Your task to perform on an android device: turn on translation in the chrome app Image 0: 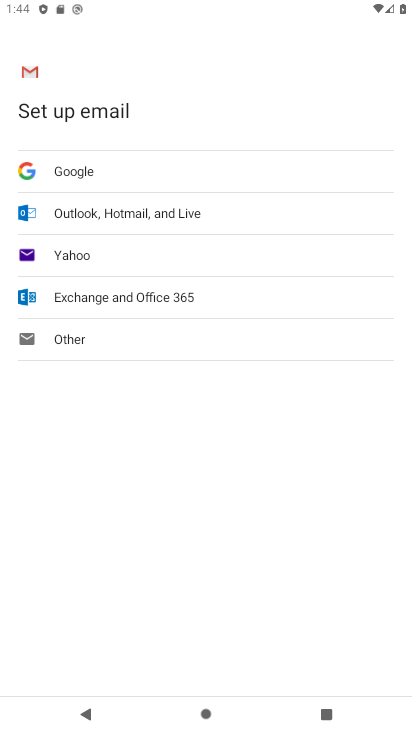
Step 0: press home button
Your task to perform on an android device: turn on translation in the chrome app Image 1: 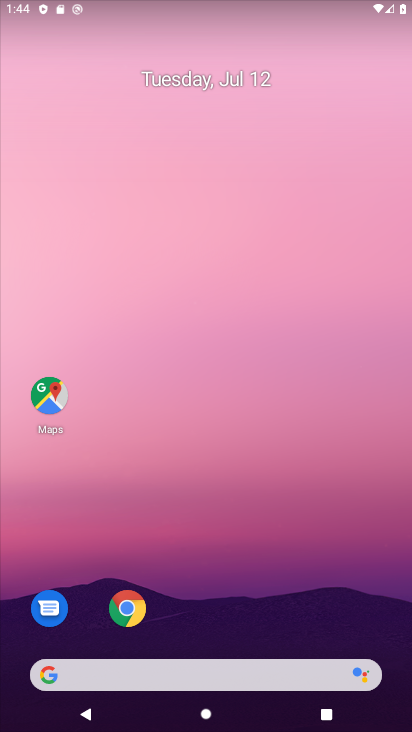
Step 1: drag from (251, 549) to (264, 8)
Your task to perform on an android device: turn on translation in the chrome app Image 2: 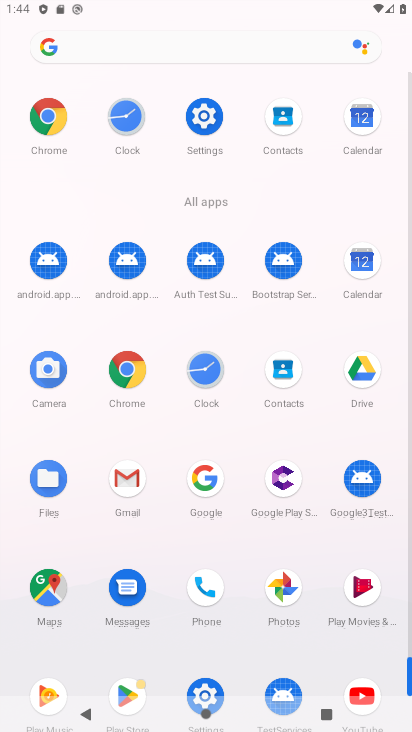
Step 2: click (133, 369)
Your task to perform on an android device: turn on translation in the chrome app Image 3: 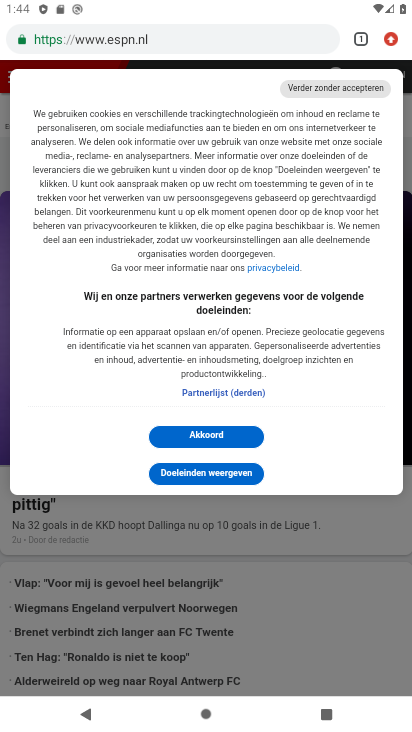
Step 3: drag from (402, 35) to (258, 517)
Your task to perform on an android device: turn on translation in the chrome app Image 4: 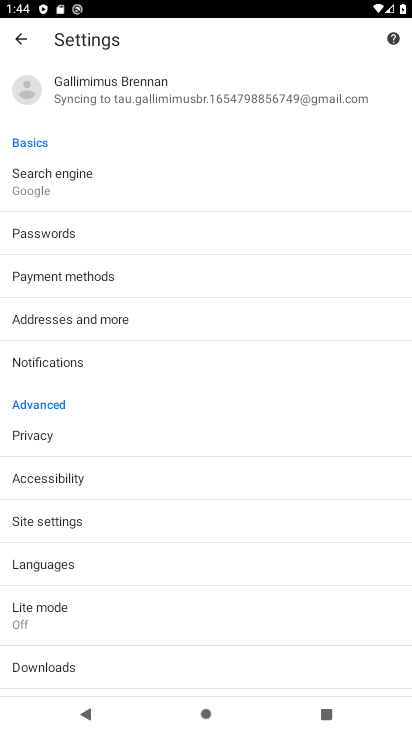
Step 4: click (67, 568)
Your task to perform on an android device: turn on translation in the chrome app Image 5: 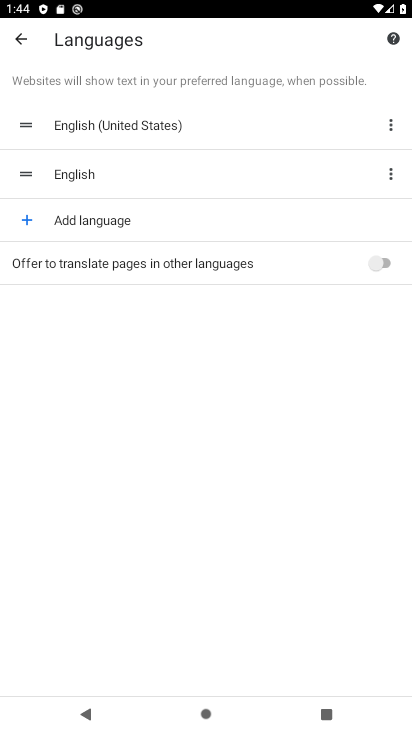
Step 5: click (402, 263)
Your task to perform on an android device: turn on translation in the chrome app Image 6: 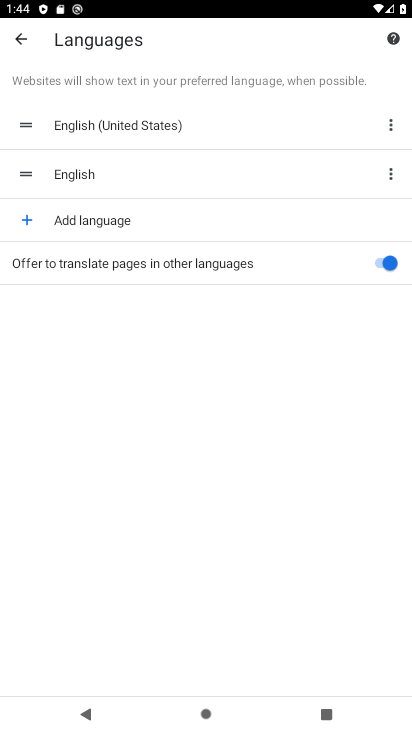
Step 6: task complete